Your task to perform on an android device: turn off smart reply in the gmail app Image 0: 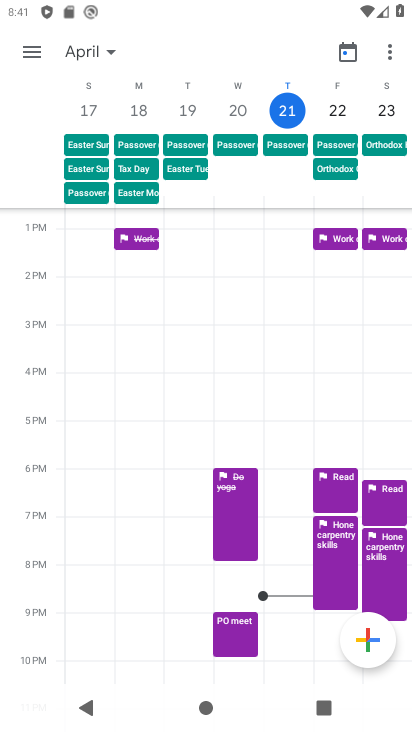
Step 0: click (183, 621)
Your task to perform on an android device: turn off smart reply in the gmail app Image 1: 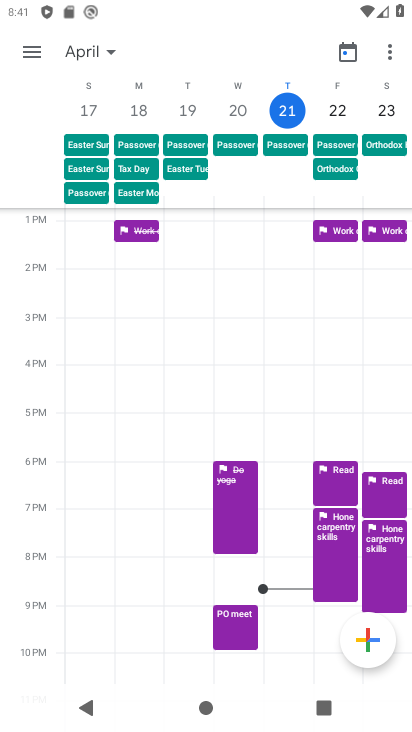
Step 1: press home button
Your task to perform on an android device: turn off smart reply in the gmail app Image 2: 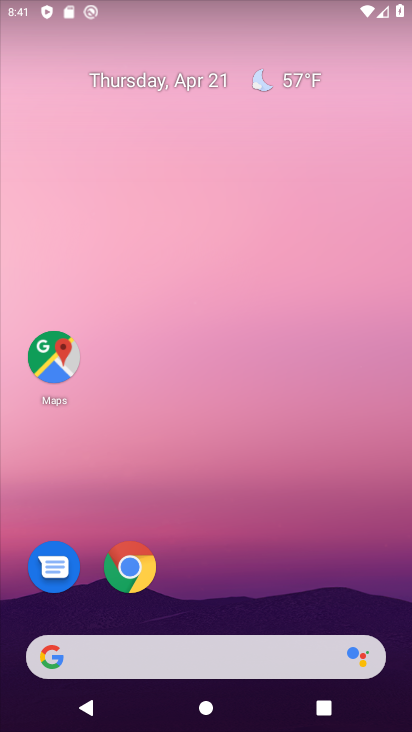
Step 2: drag from (227, 611) to (254, 65)
Your task to perform on an android device: turn off smart reply in the gmail app Image 3: 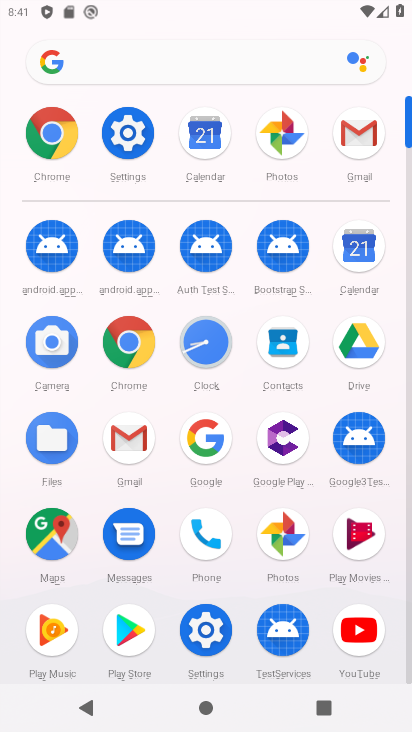
Step 3: click (130, 442)
Your task to perform on an android device: turn off smart reply in the gmail app Image 4: 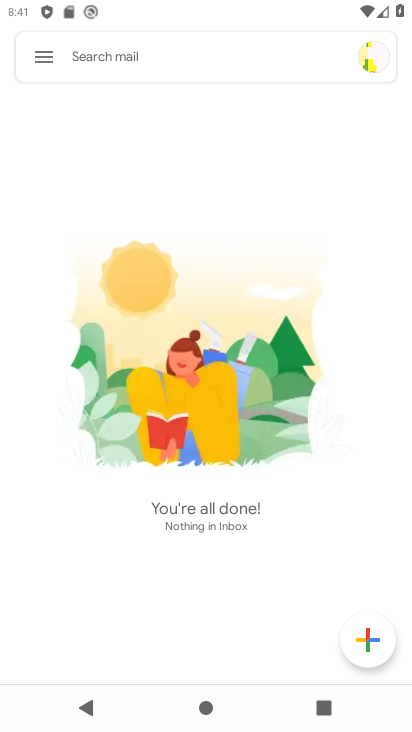
Step 4: click (36, 62)
Your task to perform on an android device: turn off smart reply in the gmail app Image 5: 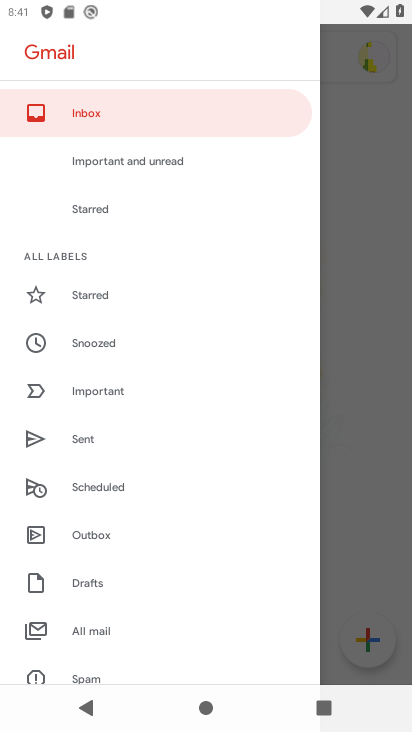
Step 5: drag from (147, 573) to (108, 118)
Your task to perform on an android device: turn off smart reply in the gmail app Image 6: 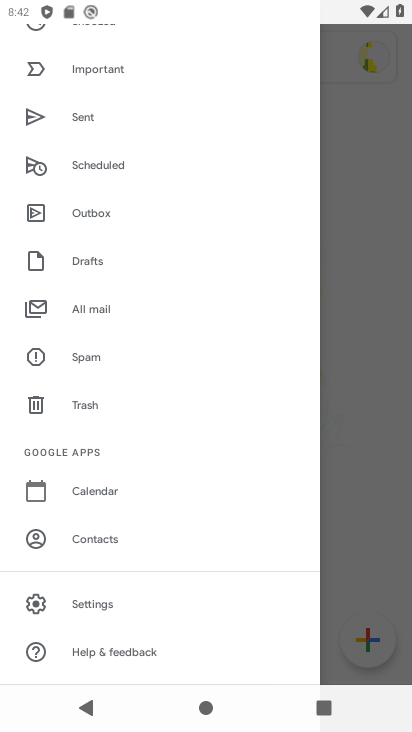
Step 6: click (81, 597)
Your task to perform on an android device: turn off smart reply in the gmail app Image 7: 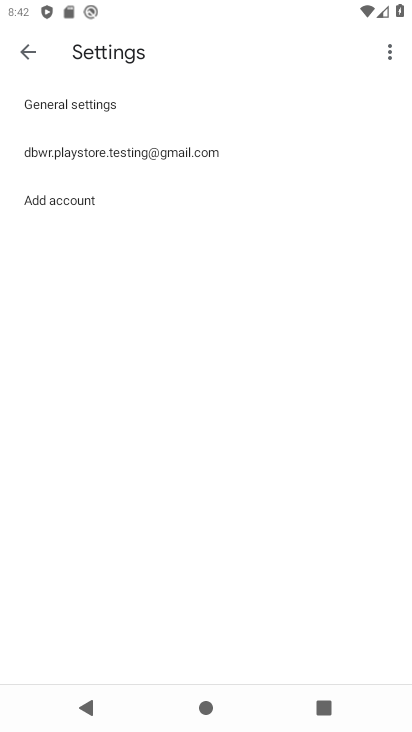
Step 7: click (40, 138)
Your task to perform on an android device: turn off smart reply in the gmail app Image 8: 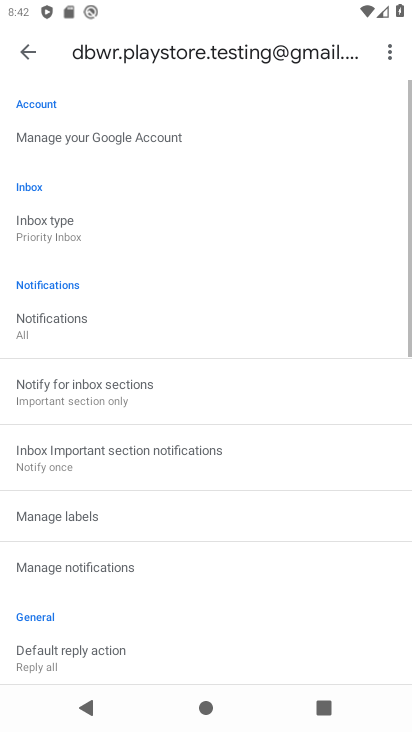
Step 8: drag from (181, 607) to (157, 161)
Your task to perform on an android device: turn off smart reply in the gmail app Image 9: 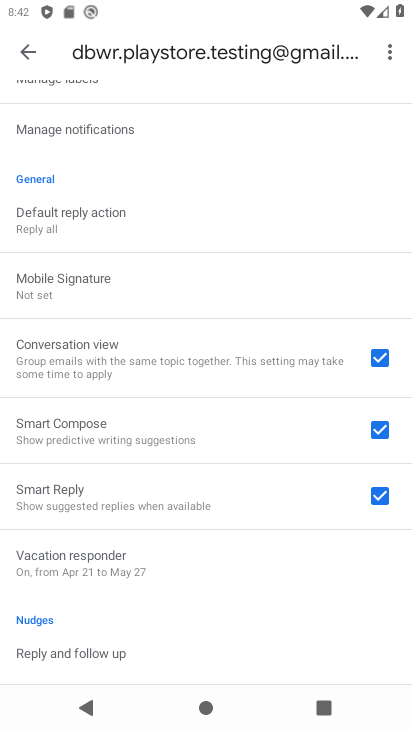
Step 9: click (375, 489)
Your task to perform on an android device: turn off smart reply in the gmail app Image 10: 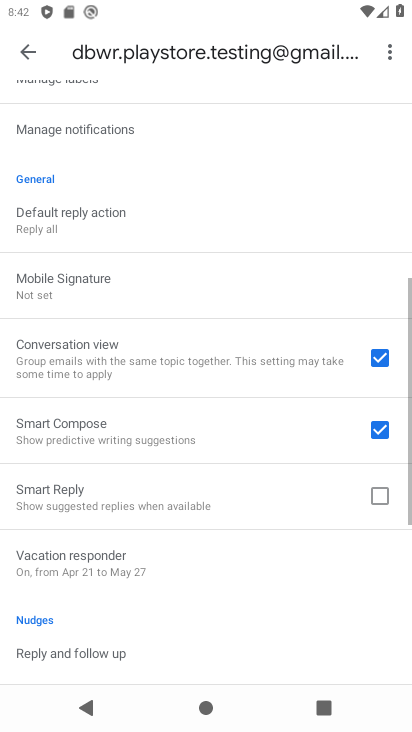
Step 10: task complete